Your task to perform on an android device: check data usage Image 0: 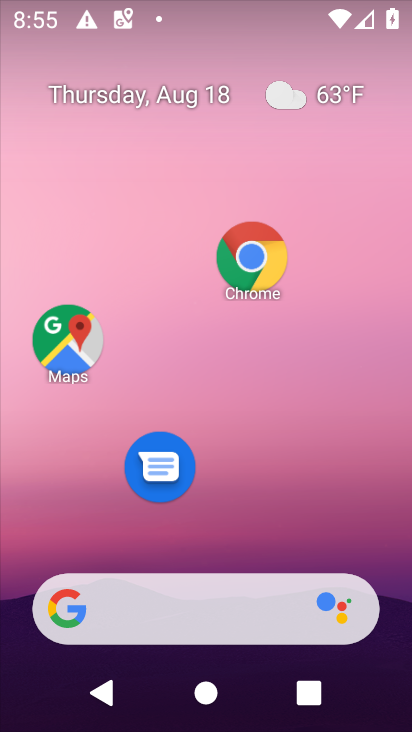
Step 0: drag from (321, 495) to (301, 103)
Your task to perform on an android device: check data usage Image 1: 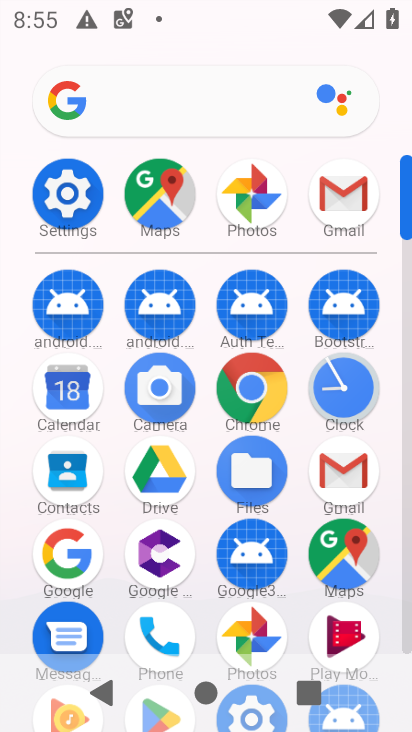
Step 1: task complete